Your task to perform on an android device: Open the Play Movies app and select the watchlist tab. Image 0: 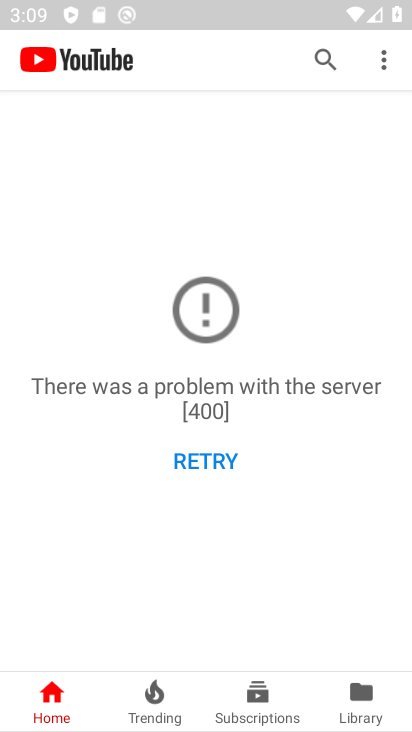
Step 0: press back button
Your task to perform on an android device: Open the Play Movies app and select the watchlist tab. Image 1: 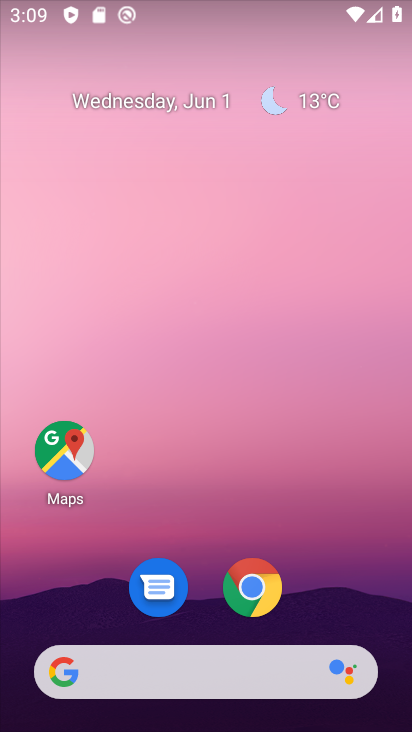
Step 1: drag from (292, 561) to (242, 5)
Your task to perform on an android device: Open the Play Movies app and select the watchlist tab. Image 2: 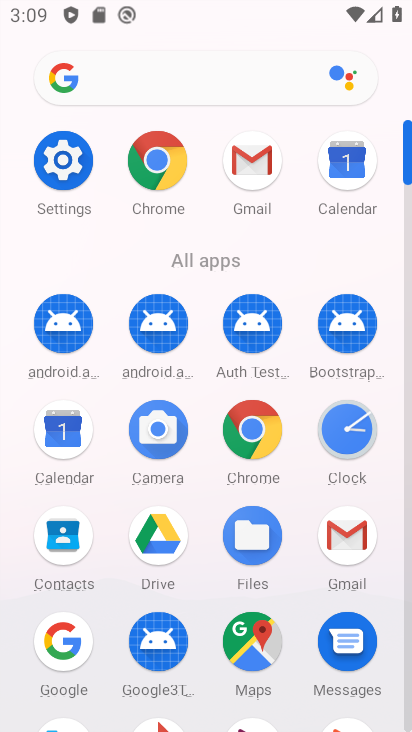
Step 2: drag from (7, 612) to (37, 235)
Your task to perform on an android device: Open the Play Movies app and select the watchlist tab. Image 3: 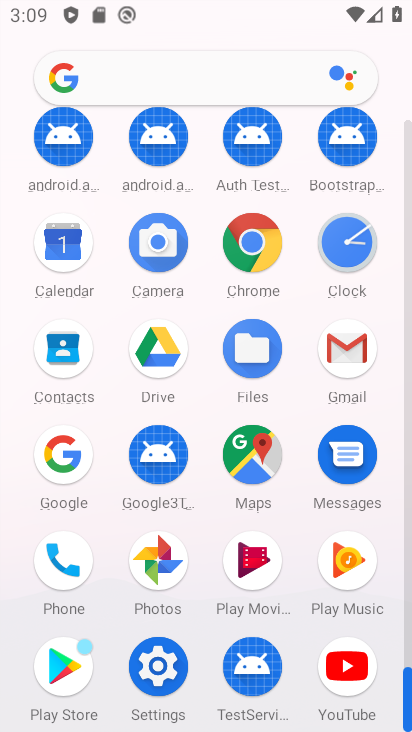
Step 3: click (256, 554)
Your task to perform on an android device: Open the Play Movies app and select the watchlist tab. Image 4: 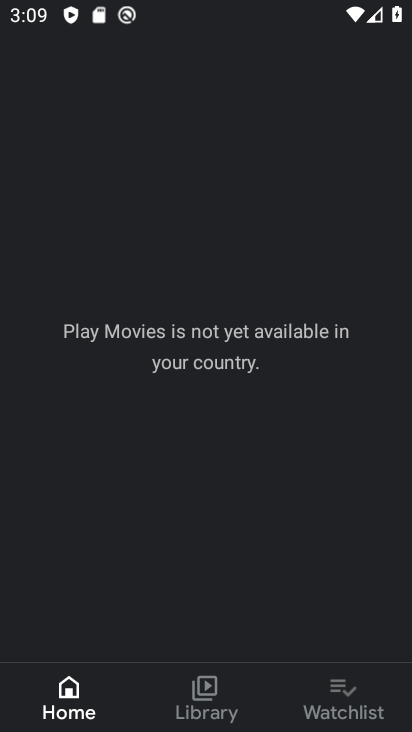
Step 4: click (365, 697)
Your task to perform on an android device: Open the Play Movies app and select the watchlist tab. Image 5: 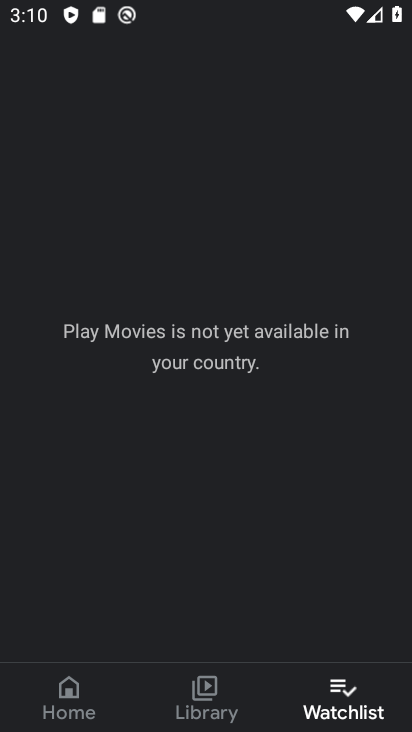
Step 5: task complete